Your task to perform on an android device: turn on the 24-hour format for clock Image 0: 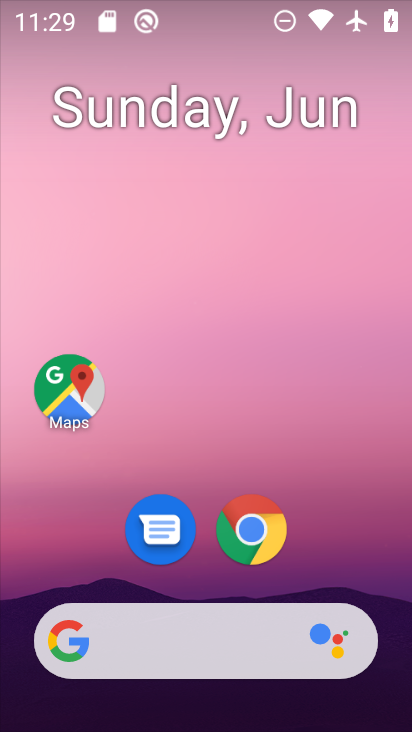
Step 0: drag from (398, 632) to (304, 30)
Your task to perform on an android device: turn on the 24-hour format for clock Image 1: 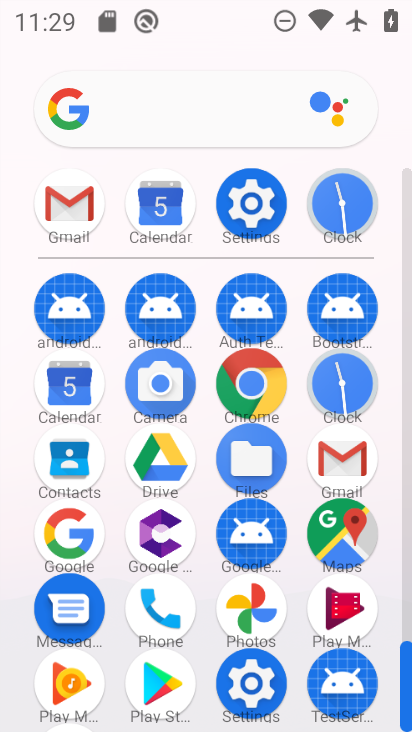
Step 1: click (410, 619)
Your task to perform on an android device: turn on the 24-hour format for clock Image 2: 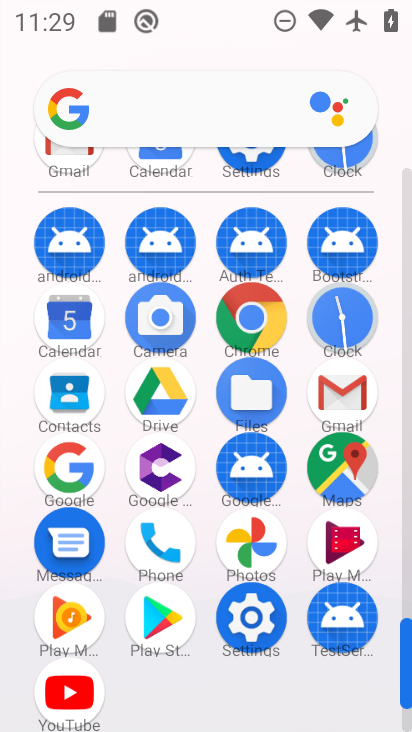
Step 2: click (341, 309)
Your task to perform on an android device: turn on the 24-hour format for clock Image 3: 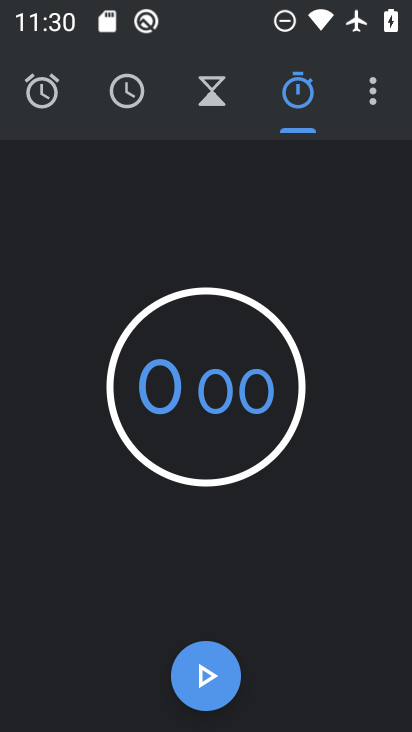
Step 3: click (375, 93)
Your task to perform on an android device: turn on the 24-hour format for clock Image 4: 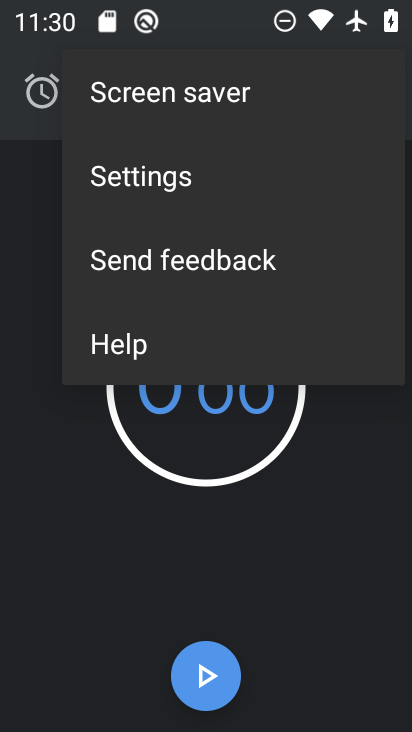
Step 4: click (163, 183)
Your task to perform on an android device: turn on the 24-hour format for clock Image 5: 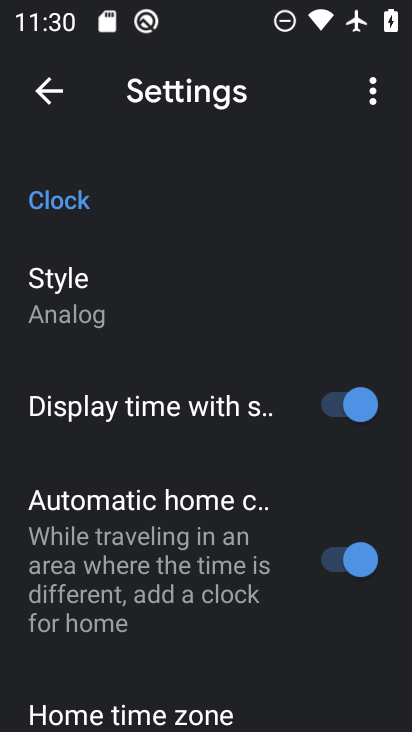
Step 5: drag from (273, 691) to (247, 231)
Your task to perform on an android device: turn on the 24-hour format for clock Image 6: 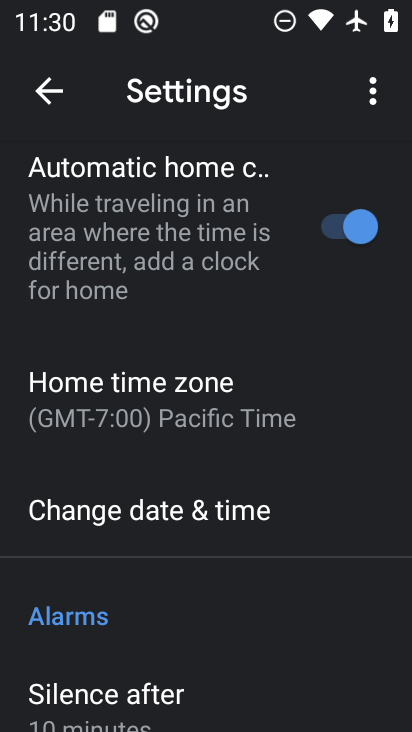
Step 6: click (195, 525)
Your task to perform on an android device: turn on the 24-hour format for clock Image 7: 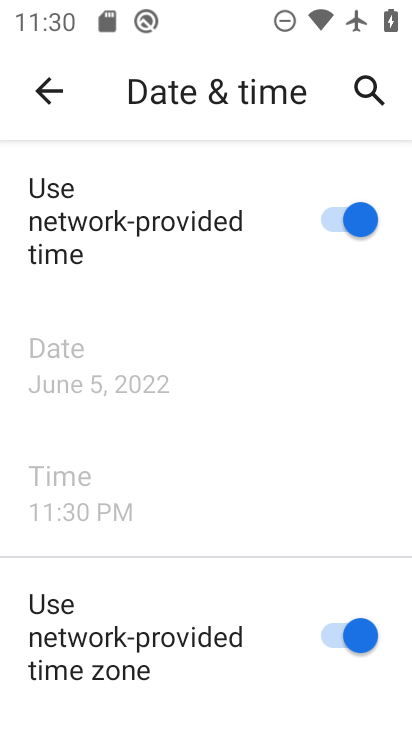
Step 7: drag from (274, 663) to (254, 148)
Your task to perform on an android device: turn on the 24-hour format for clock Image 8: 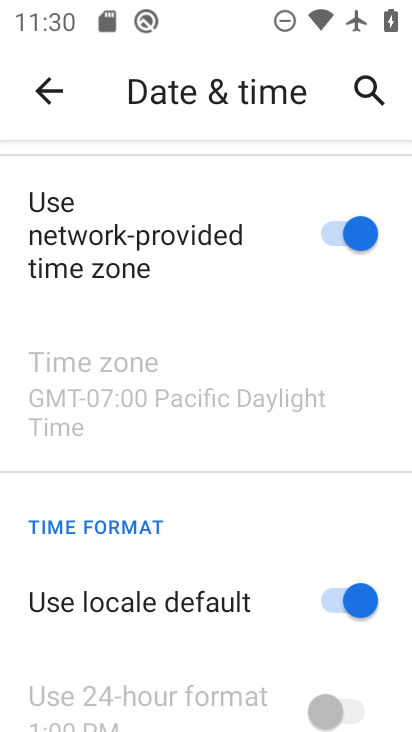
Step 8: drag from (254, 597) to (243, 341)
Your task to perform on an android device: turn on the 24-hour format for clock Image 9: 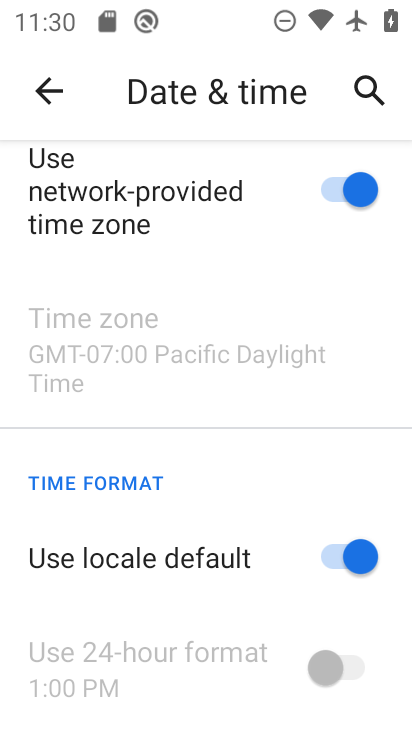
Step 9: click (329, 554)
Your task to perform on an android device: turn on the 24-hour format for clock Image 10: 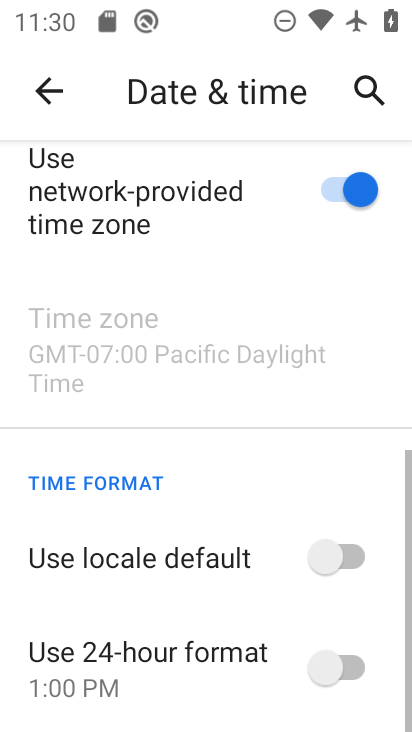
Step 10: click (356, 665)
Your task to perform on an android device: turn on the 24-hour format for clock Image 11: 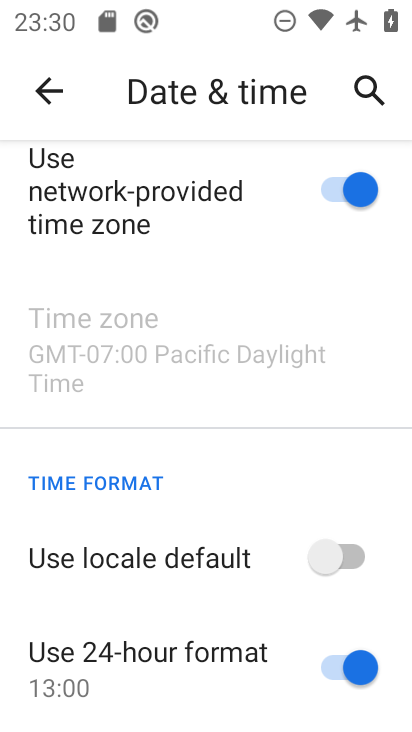
Step 11: task complete